Your task to perform on an android device: Open Chrome and go to settings Image 0: 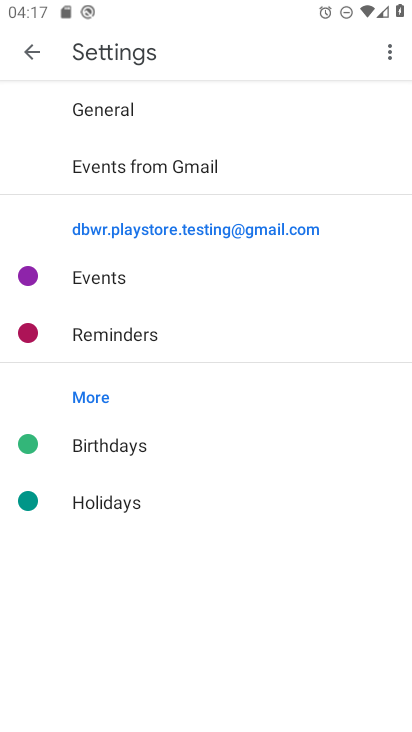
Step 0: press home button
Your task to perform on an android device: Open Chrome and go to settings Image 1: 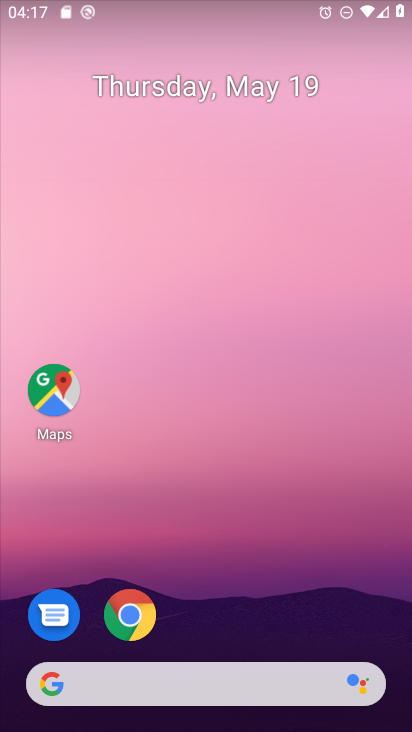
Step 1: click (147, 612)
Your task to perform on an android device: Open Chrome and go to settings Image 2: 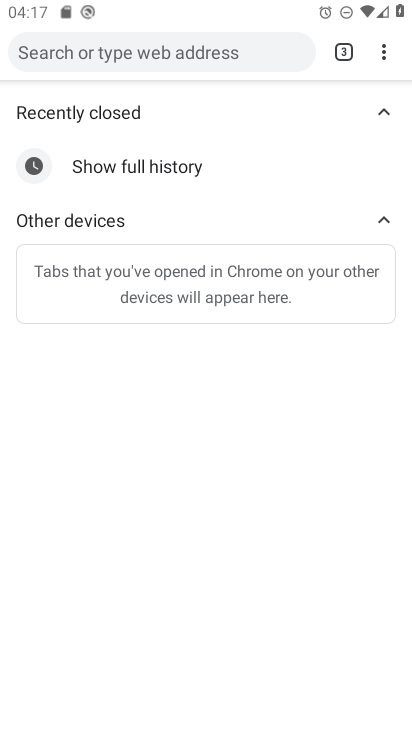
Step 2: click (390, 57)
Your task to perform on an android device: Open Chrome and go to settings Image 3: 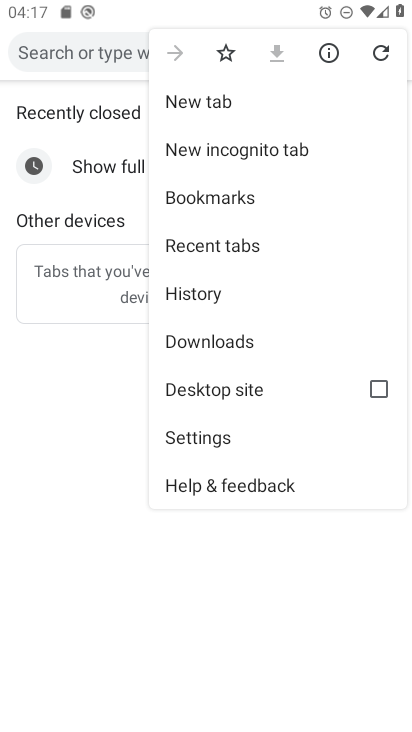
Step 3: click (310, 438)
Your task to perform on an android device: Open Chrome and go to settings Image 4: 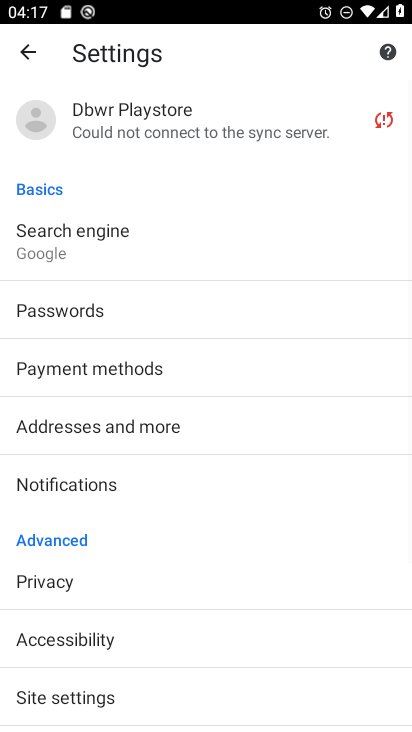
Step 4: task complete